Your task to perform on an android device: turn on location history Image 0: 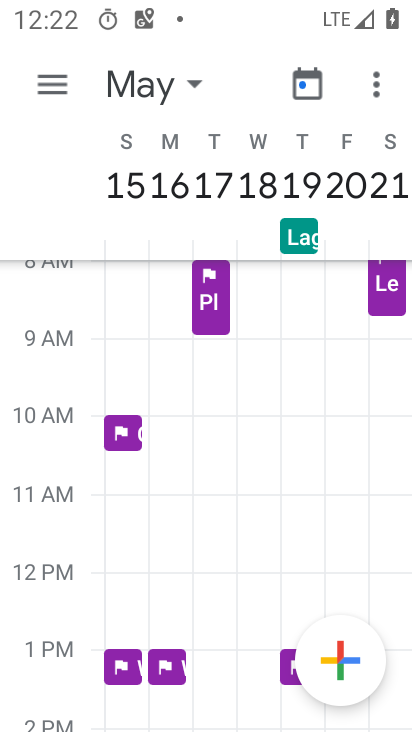
Step 0: press home button
Your task to perform on an android device: turn on location history Image 1: 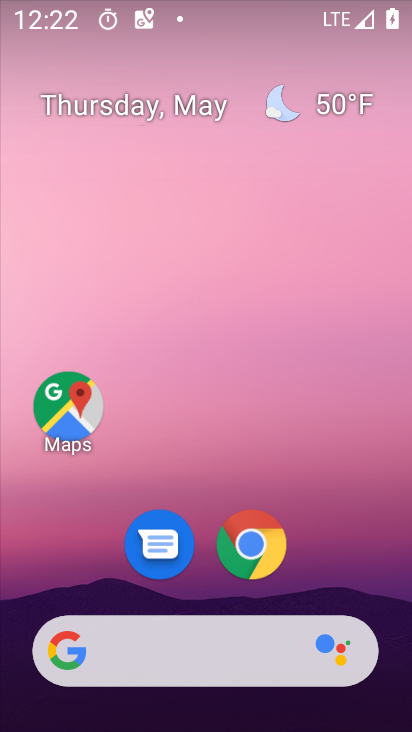
Step 1: drag from (224, 656) to (144, 57)
Your task to perform on an android device: turn on location history Image 2: 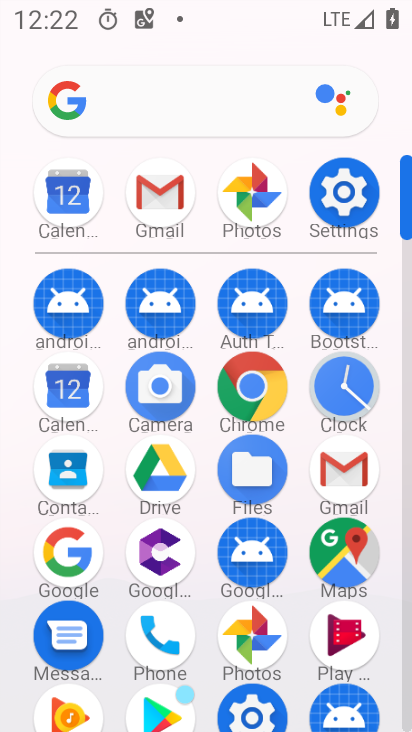
Step 2: click (324, 194)
Your task to perform on an android device: turn on location history Image 3: 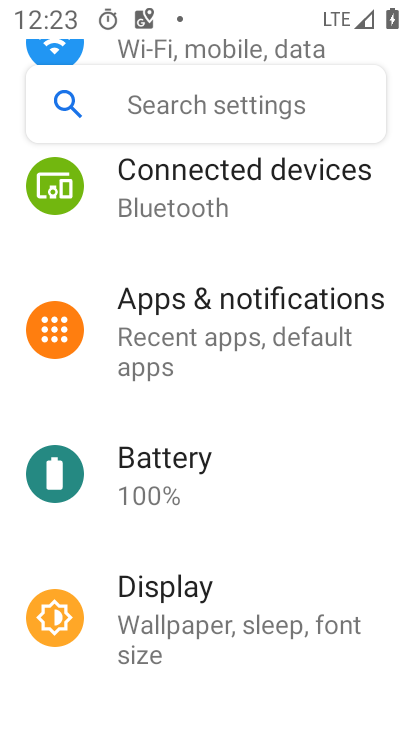
Step 3: drag from (257, 573) to (184, 13)
Your task to perform on an android device: turn on location history Image 4: 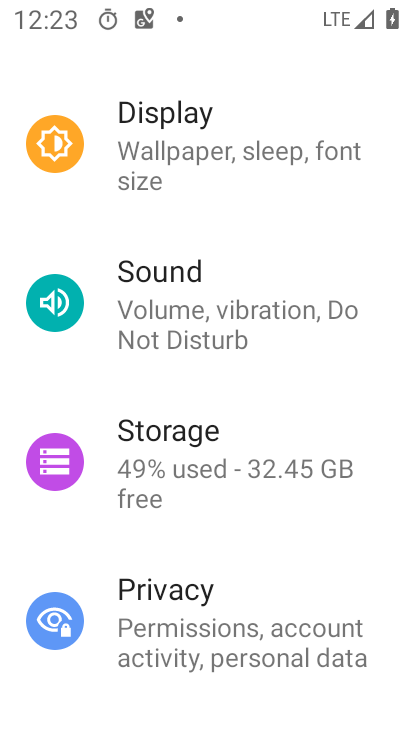
Step 4: drag from (261, 552) to (226, 64)
Your task to perform on an android device: turn on location history Image 5: 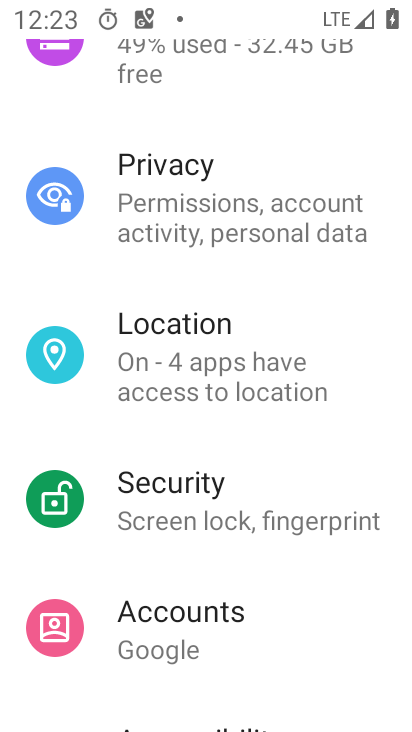
Step 5: click (214, 363)
Your task to perform on an android device: turn on location history Image 6: 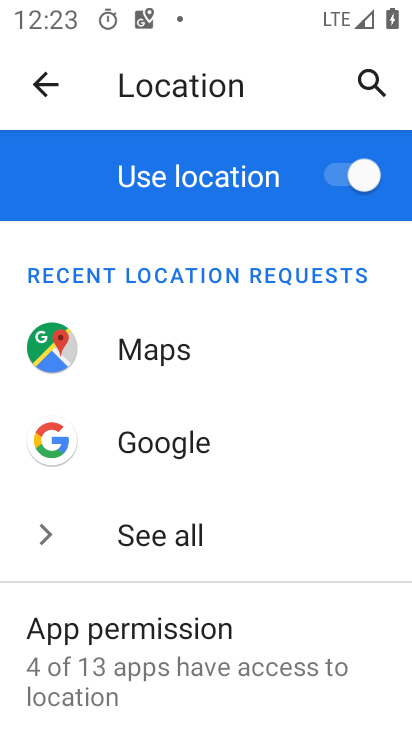
Step 6: drag from (237, 572) to (143, 8)
Your task to perform on an android device: turn on location history Image 7: 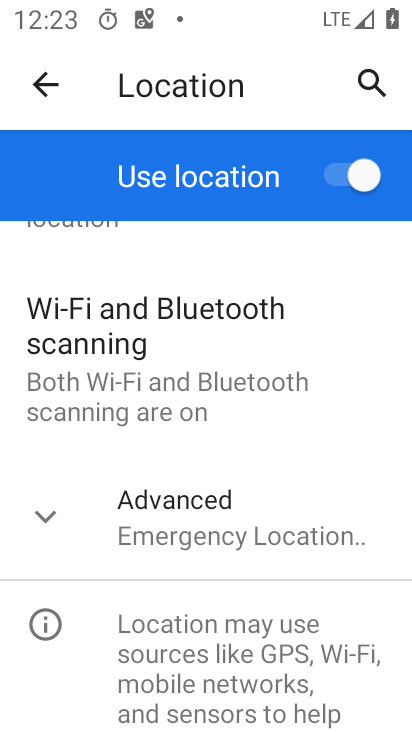
Step 7: click (238, 558)
Your task to perform on an android device: turn on location history Image 8: 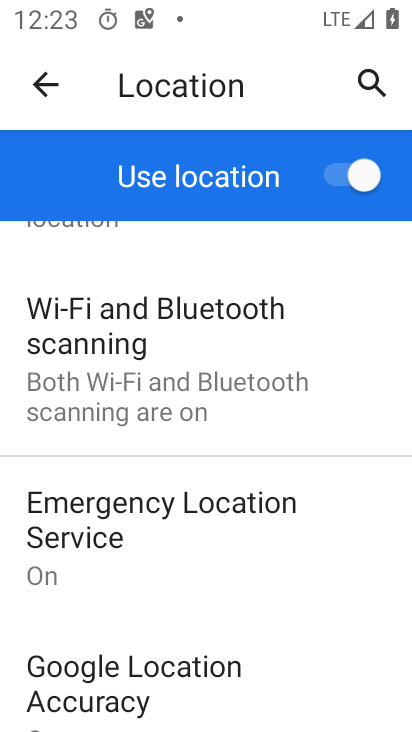
Step 8: drag from (139, 664) to (114, 179)
Your task to perform on an android device: turn on location history Image 9: 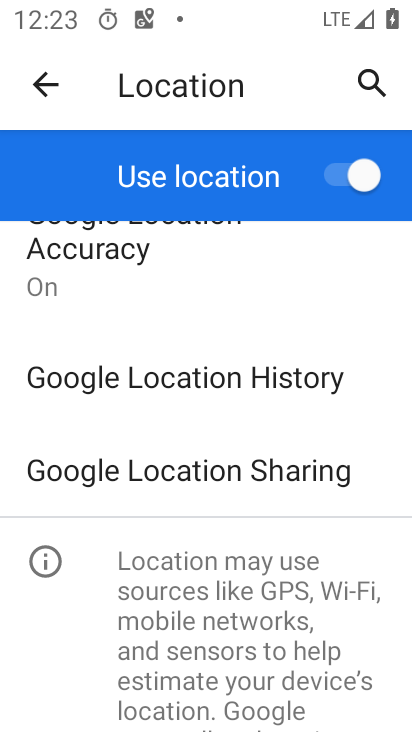
Step 9: click (177, 387)
Your task to perform on an android device: turn on location history Image 10: 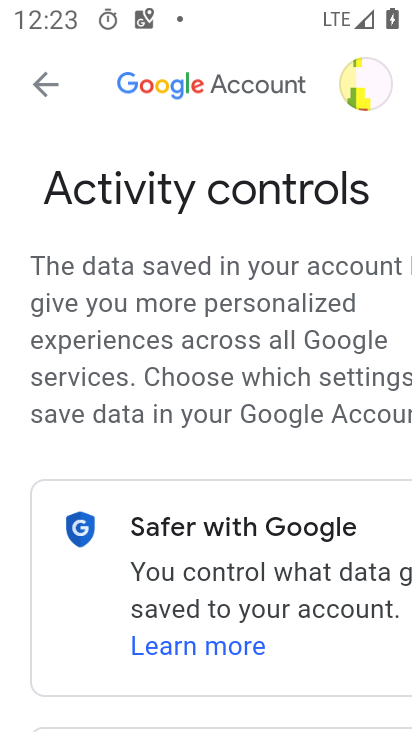
Step 10: task complete